Your task to perform on an android device: Go to calendar. Show me events next week Image 0: 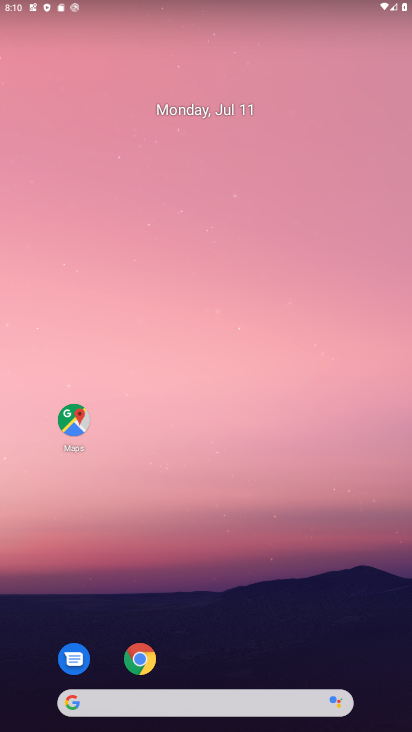
Step 0: drag from (165, 664) to (377, 130)
Your task to perform on an android device: Go to calendar. Show me events next week Image 1: 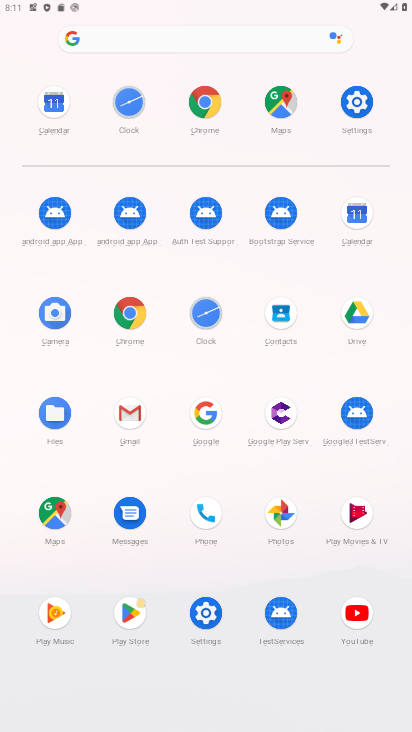
Step 1: click (344, 210)
Your task to perform on an android device: Go to calendar. Show me events next week Image 2: 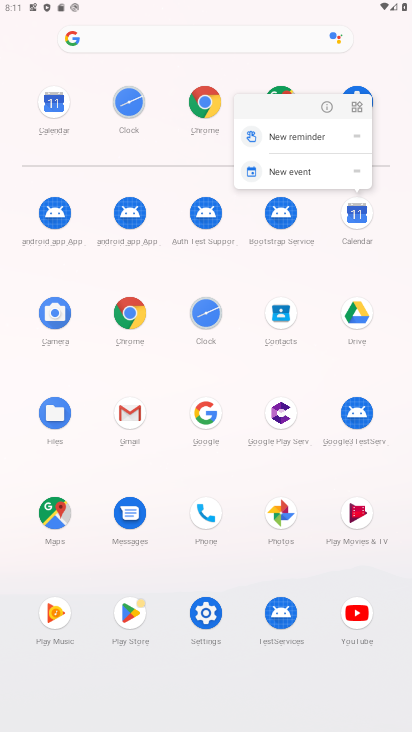
Step 2: click (322, 107)
Your task to perform on an android device: Go to calendar. Show me events next week Image 3: 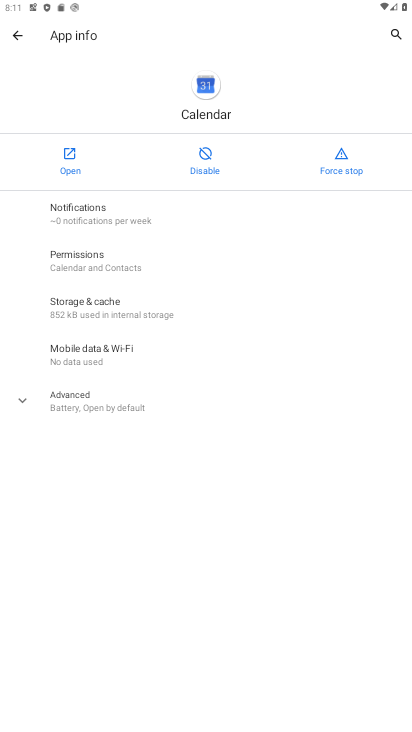
Step 3: click (56, 166)
Your task to perform on an android device: Go to calendar. Show me events next week Image 4: 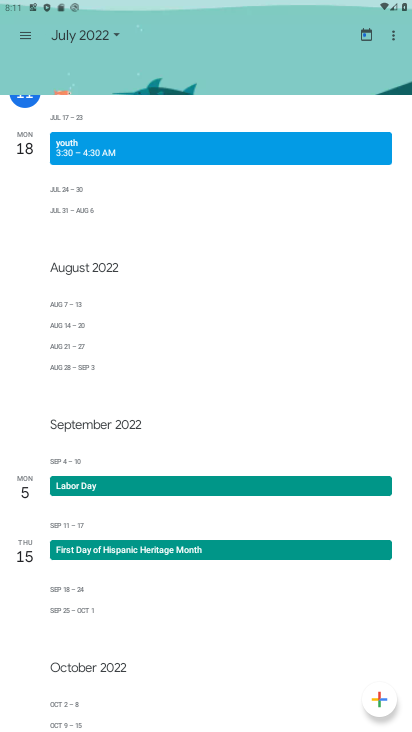
Step 4: drag from (237, 287) to (209, 456)
Your task to perform on an android device: Go to calendar. Show me events next week Image 5: 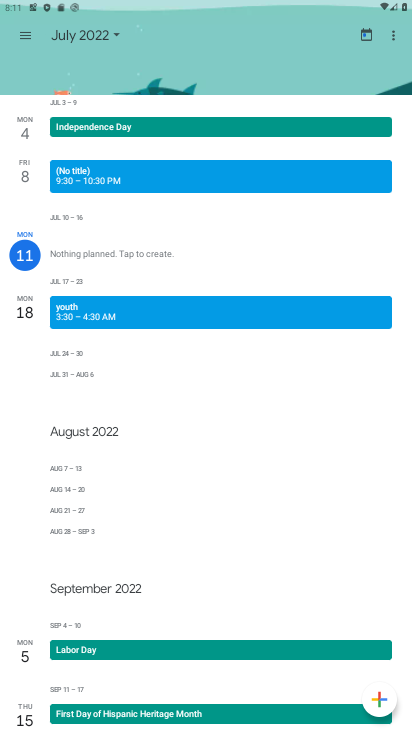
Step 5: drag from (252, 272) to (227, 539)
Your task to perform on an android device: Go to calendar. Show me events next week Image 6: 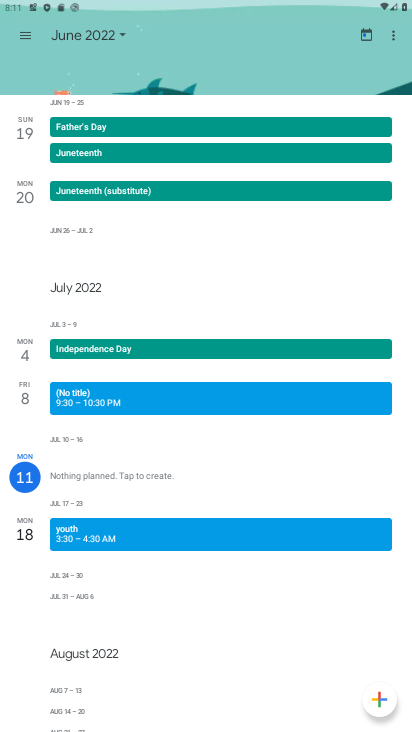
Step 6: click (99, 45)
Your task to perform on an android device: Go to calendar. Show me events next week Image 7: 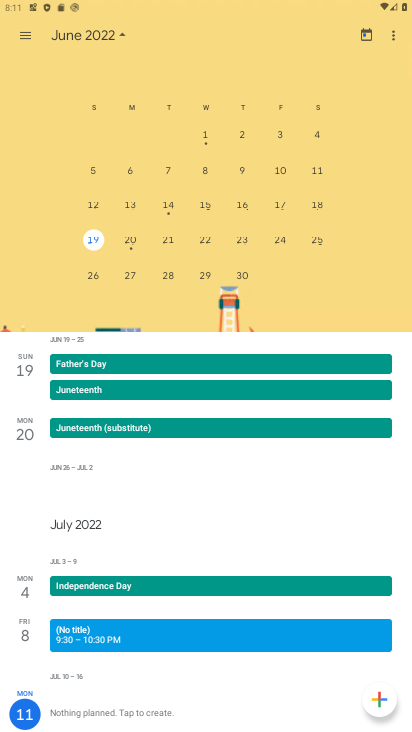
Step 7: drag from (306, 200) to (2, 216)
Your task to perform on an android device: Go to calendar. Show me events next week Image 8: 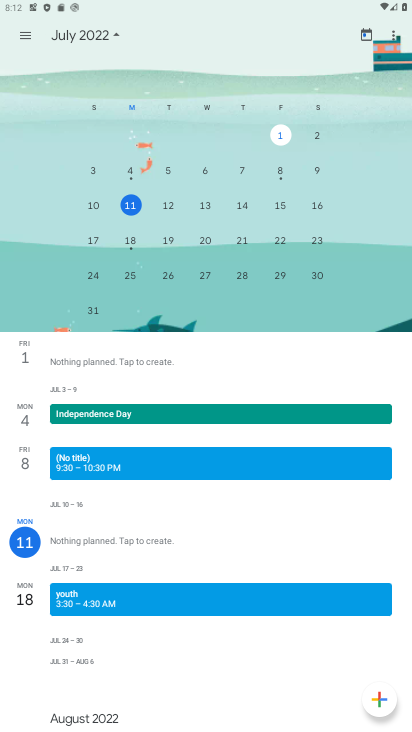
Step 8: click (156, 239)
Your task to perform on an android device: Go to calendar. Show me events next week Image 9: 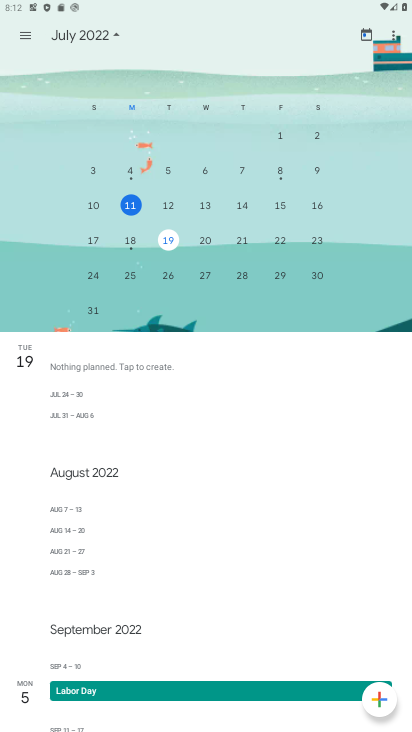
Step 9: click (176, 243)
Your task to perform on an android device: Go to calendar. Show me events next week Image 10: 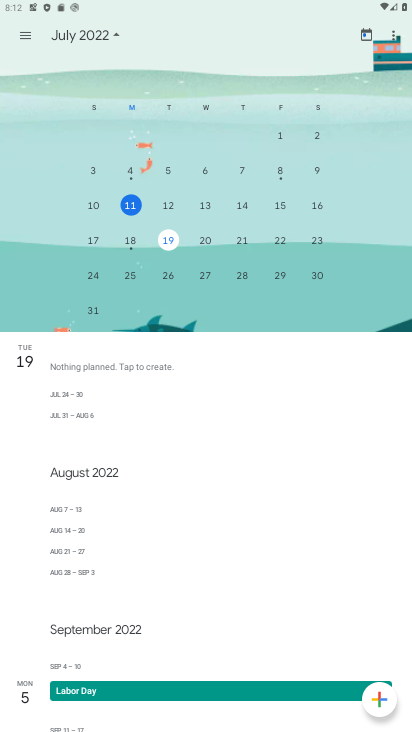
Step 10: task complete